Your task to perform on an android device: change text size in settings app Image 0: 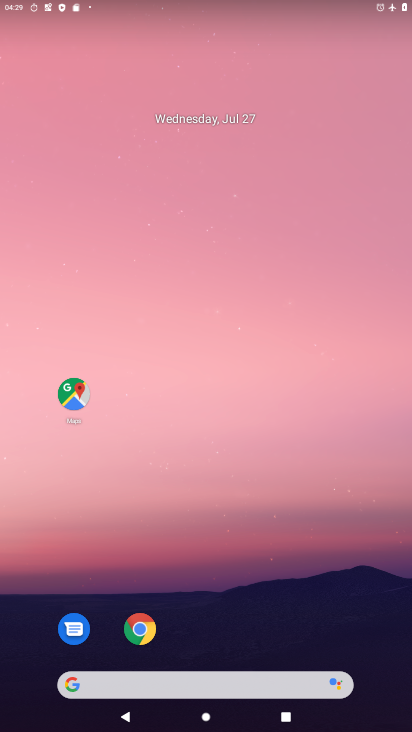
Step 0: drag from (264, 520) to (245, 0)
Your task to perform on an android device: change text size in settings app Image 1: 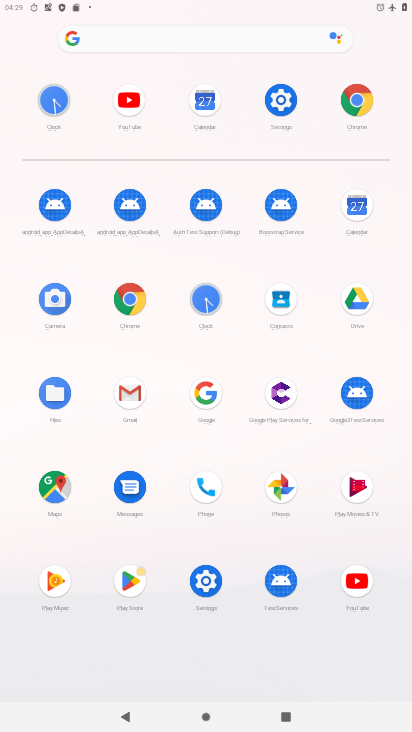
Step 1: click (277, 102)
Your task to perform on an android device: change text size in settings app Image 2: 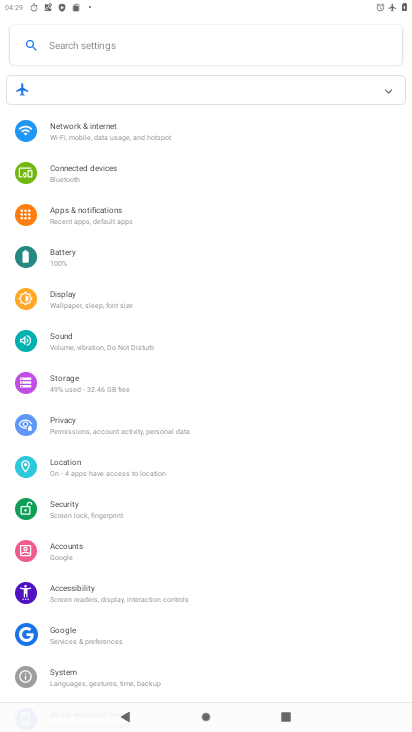
Step 2: click (96, 304)
Your task to perform on an android device: change text size in settings app Image 3: 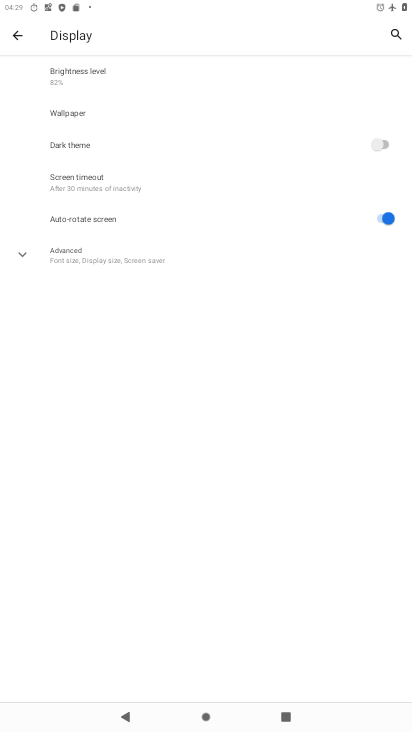
Step 3: click (90, 258)
Your task to perform on an android device: change text size in settings app Image 4: 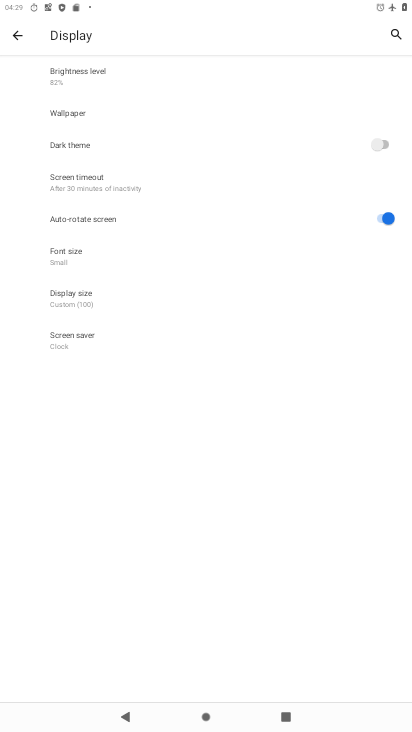
Step 4: click (66, 273)
Your task to perform on an android device: change text size in settings app Image 5: 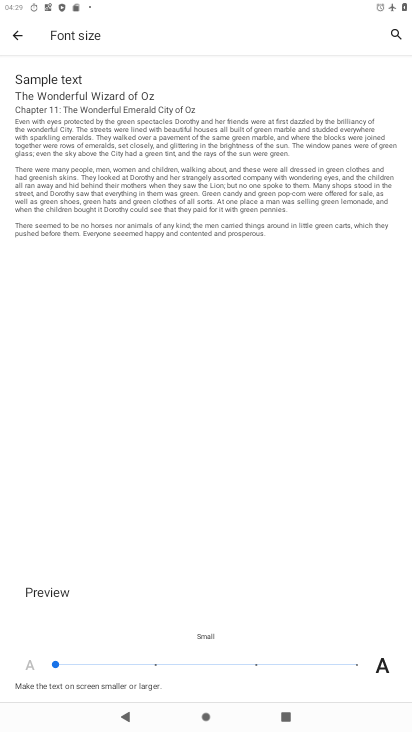
Step 5: click (109, 659)
Your task to perform on an android device: change text size in settings app Image 6: 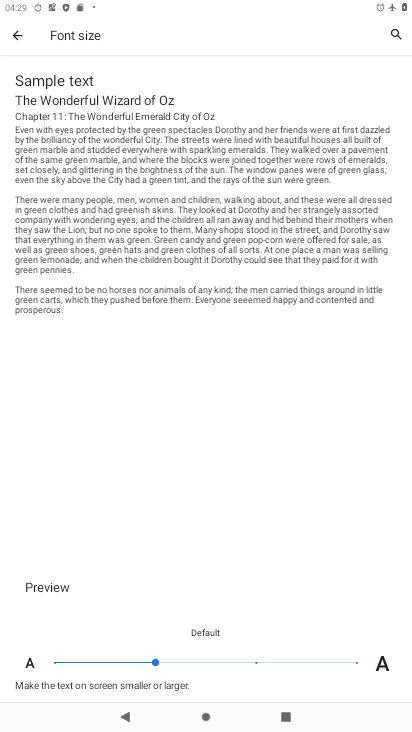
Step 6: task complete